Your task to perform on an android device: Turn on the flashlight Image 0: 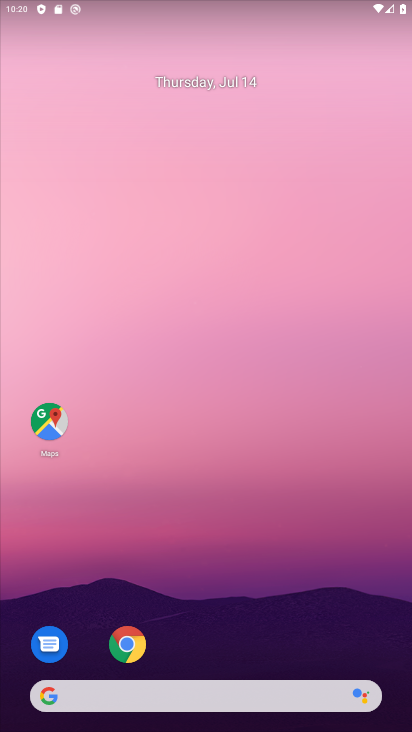
Step 0: drag from (159, 10) to (176, 496)
Your task to perform on an android device: Turn on the flashlight Image 1: 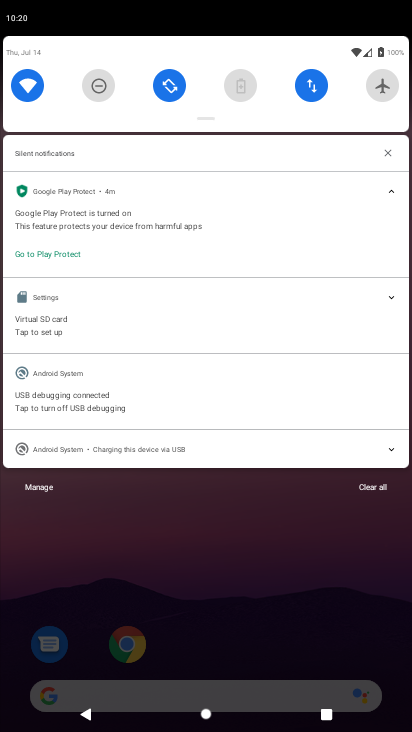
Step 1: task complete